Your task to perform on an android device: Is it going to rain today? Image 0: 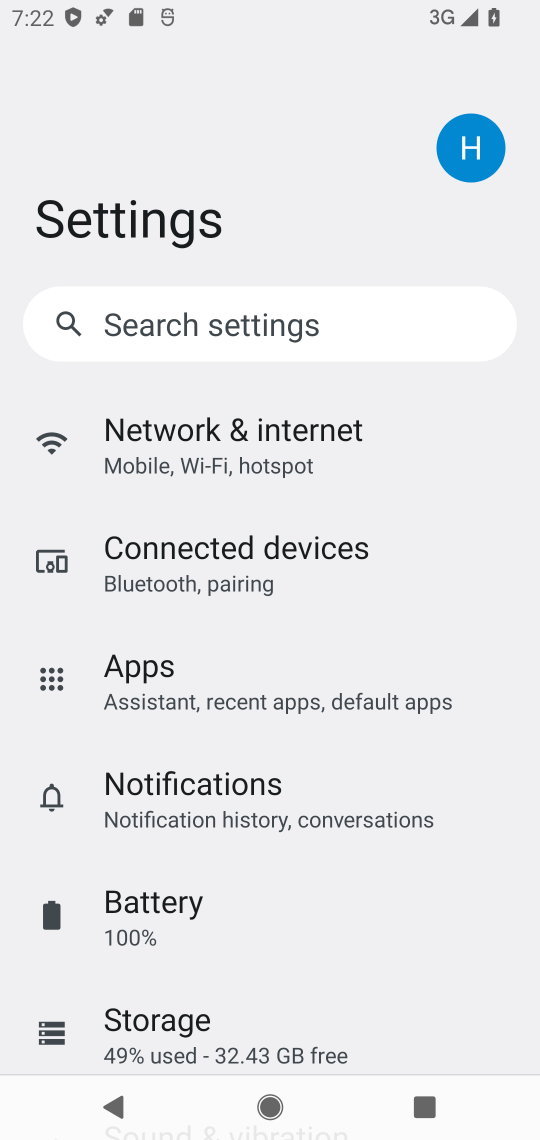
Step 0: press home button
Your task to perform on an android device: Is it going to rain today? Image 1: 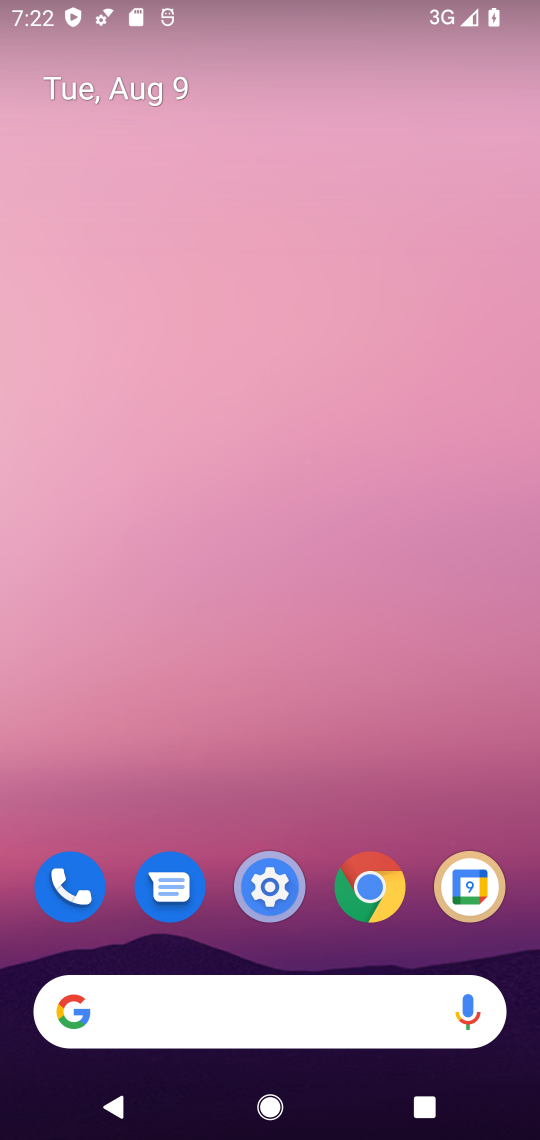
Step 1: click (249, 1015)
Your task to perform on an android device: Is it going to rain today? Image 2: 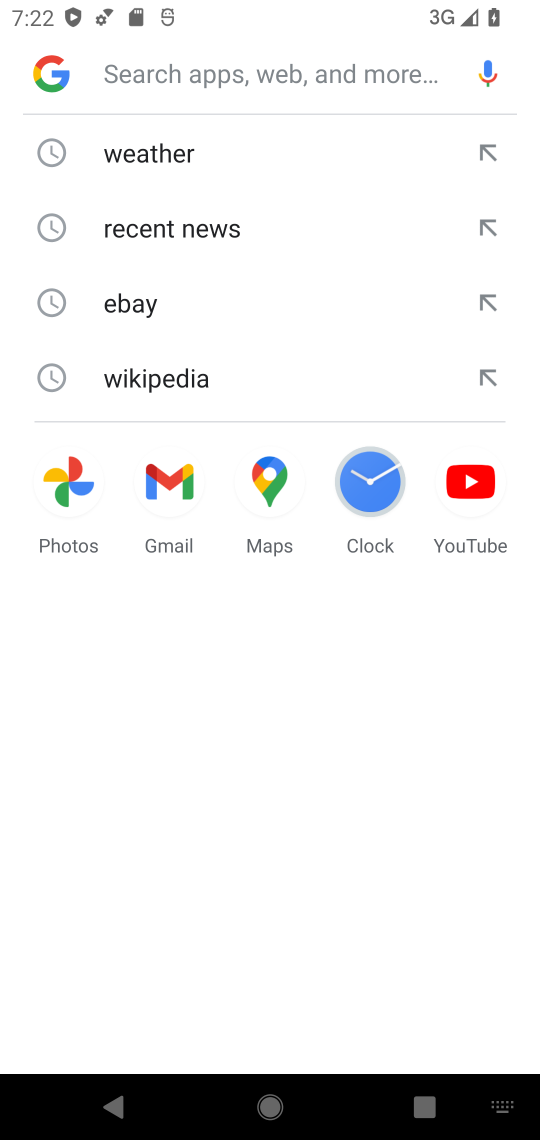
Step 2: click (174, 158)
Your task to perform on an android device: Is it going to rain today? Image 3: 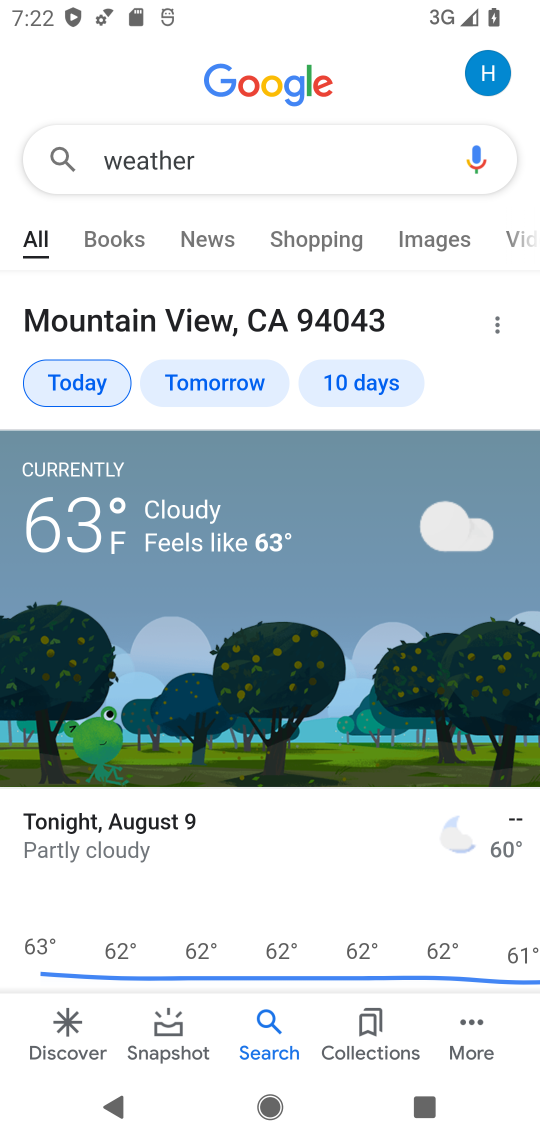
Step 3: click (112, 388)
Your task to perform on an android device: Is it going to rain today? Image 4: 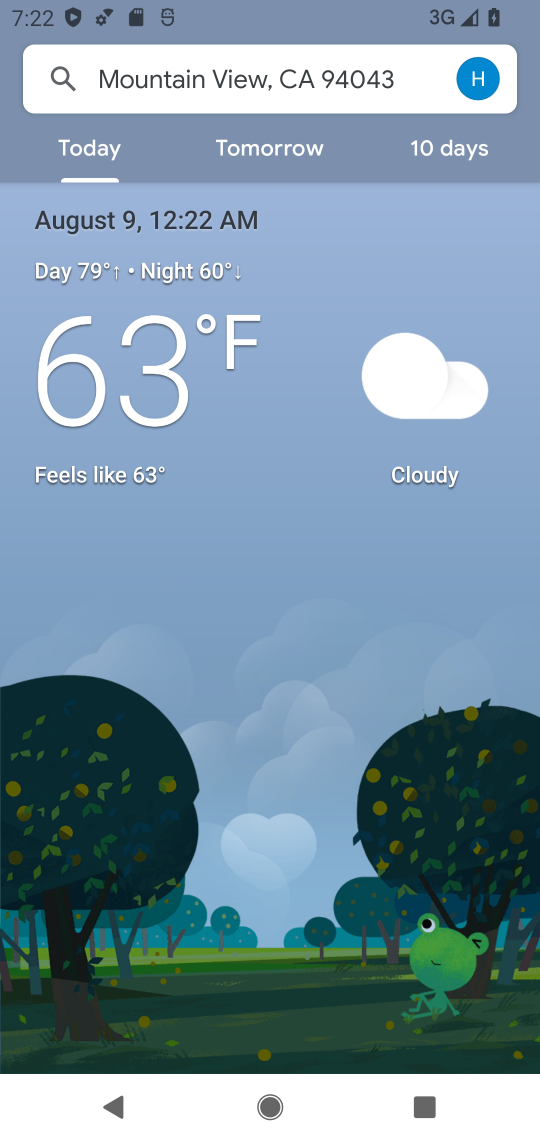
Step 4: task complete